Your task to perform on an android device: open device folders in google photos Image 0: 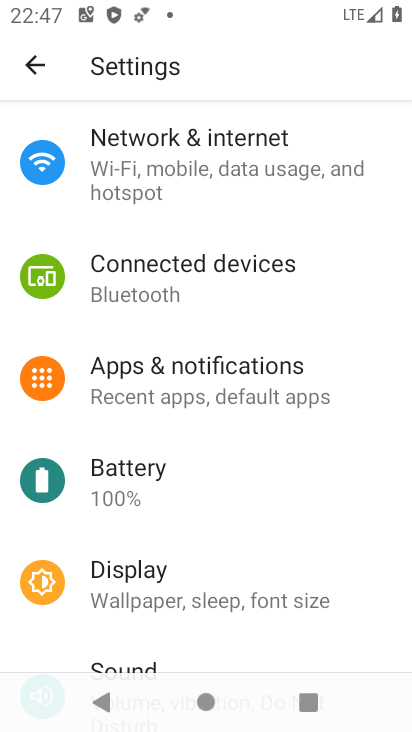
Step 0: press home button
Your task to perform on an android device: open device folders in google photos Image 1: 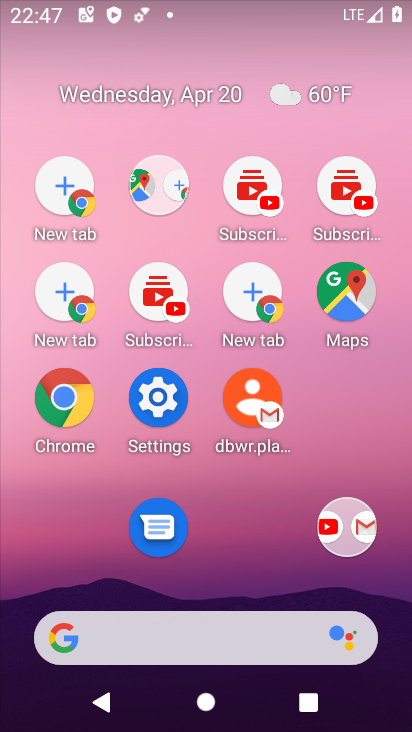
Step 1: drag from (301, 682) to (171, 161)
Your task to perform on an android device: open device folders in google photos Image 2: 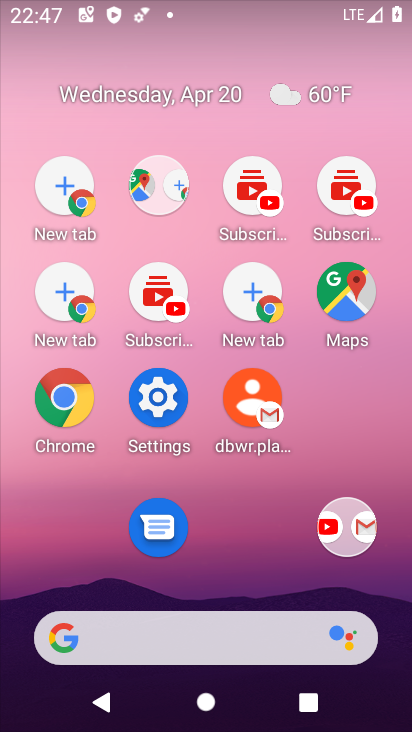
Step 2: drag from (206, 552) to (68, 158)
Your task to perform on an android device: open device folders in google photos Image 3: 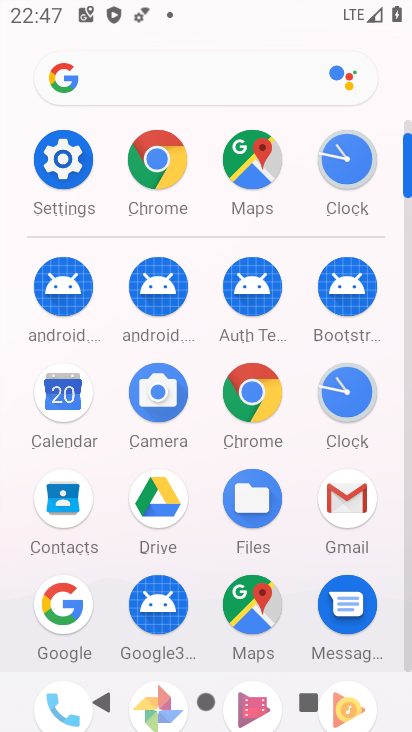
Step 3: drag from (145, 481) to (3, 0)
Your task to perform on an android device: open device folders in google photos Image 4: 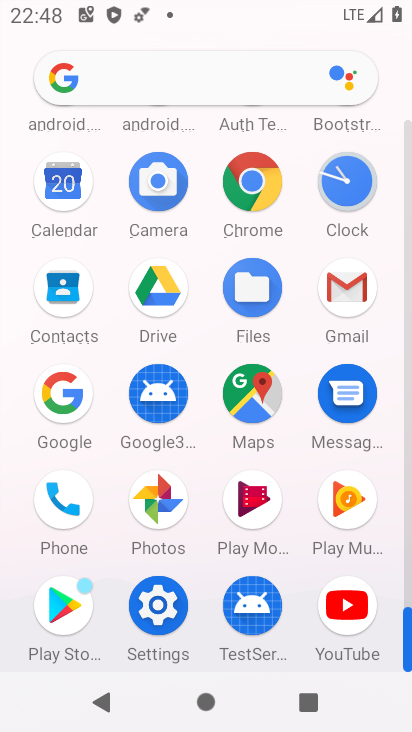
Step 4: click (159, 512)
Your task to perform on an android device: open device folders in google photos Image 5: 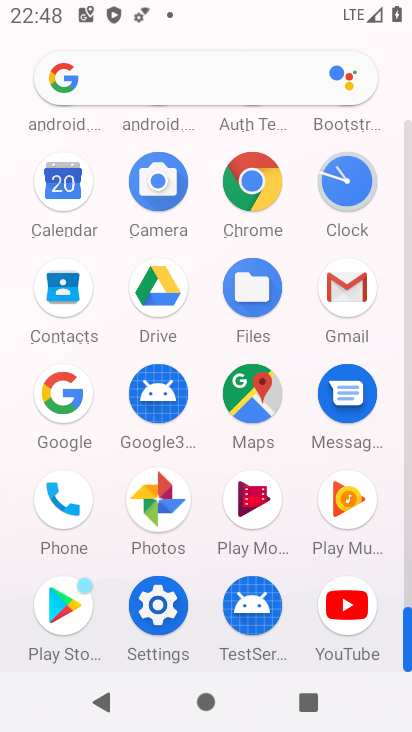
Step 5: click (160, 511)
Your task to perform on an android device: open device folders in google photos Image 6: 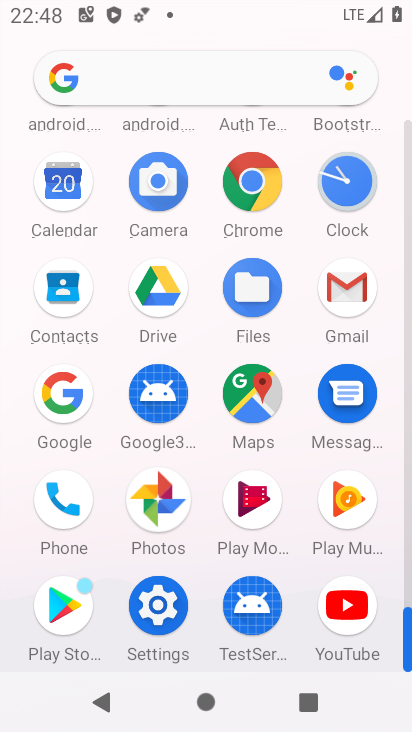
Step 6: click (160, 511)
Your task to perform on an android device: open device folders in google photos Image 7: 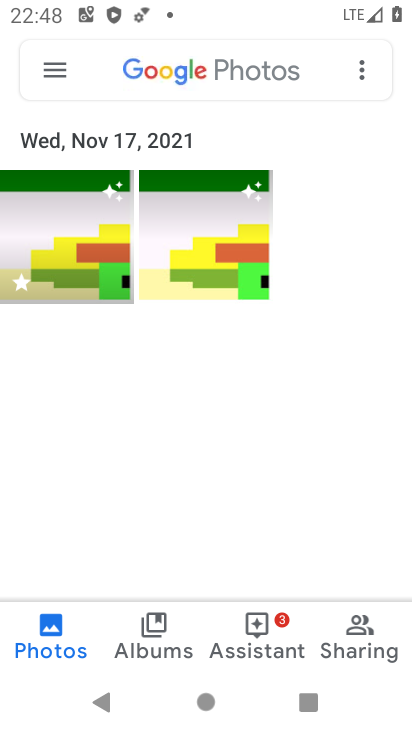
Step 7: task complete